Your task to perform on an android device: Open eBay Image 0: 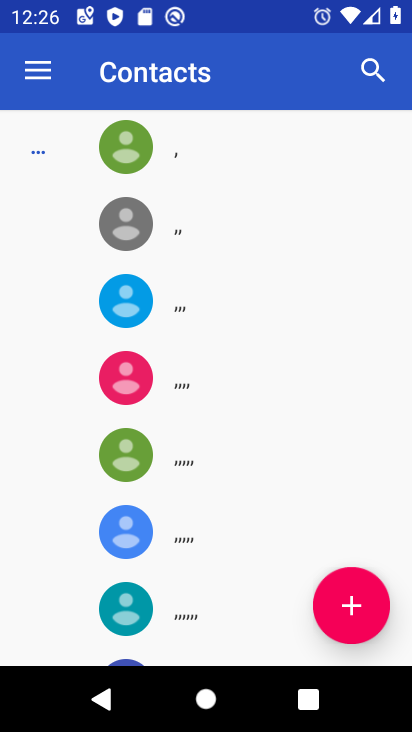
Step 0: press back button
Your task to perform on an android device: Open eBay Image 1: 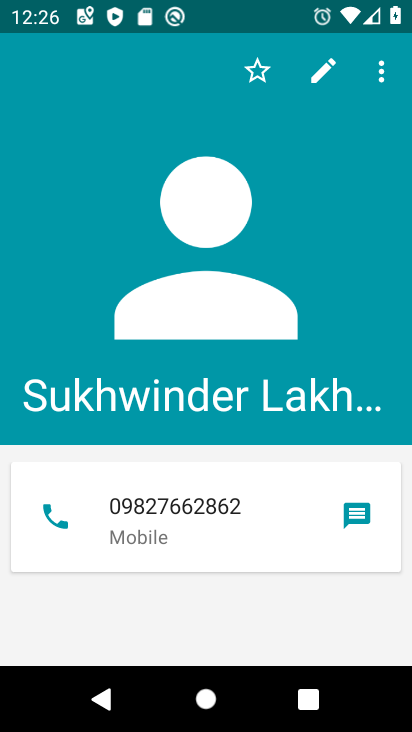
Step 1: press back button
Your task to perform on an android device: Open eBay Image 2: 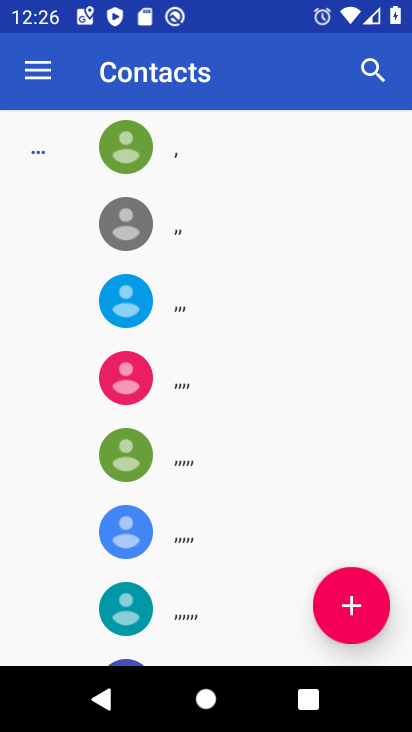
Step 2: press back button
Your task to perform on an android device: Open eBay Image 3: 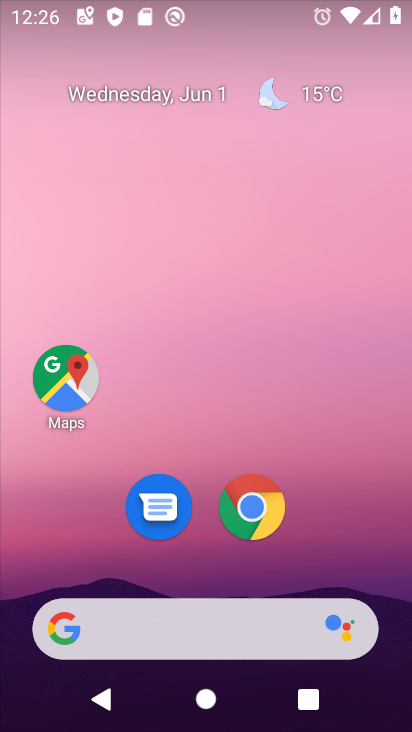
Step 3: click (250, 505)
Your task to perform on an android device: Open eBay Image 4: 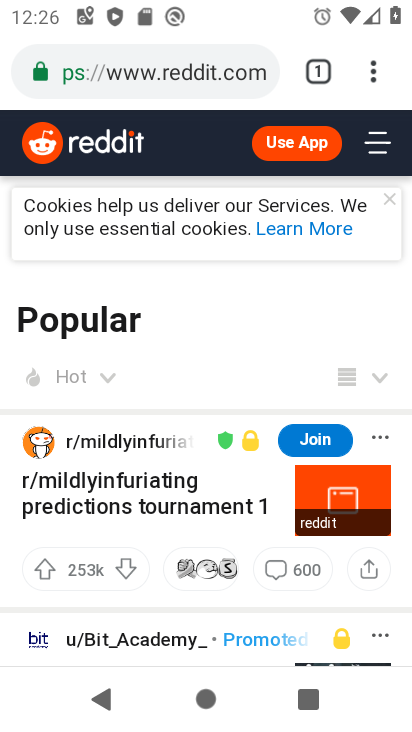
Step 4: click (246, 78)
Your task to perform on an android device: Open eBay Image 5: 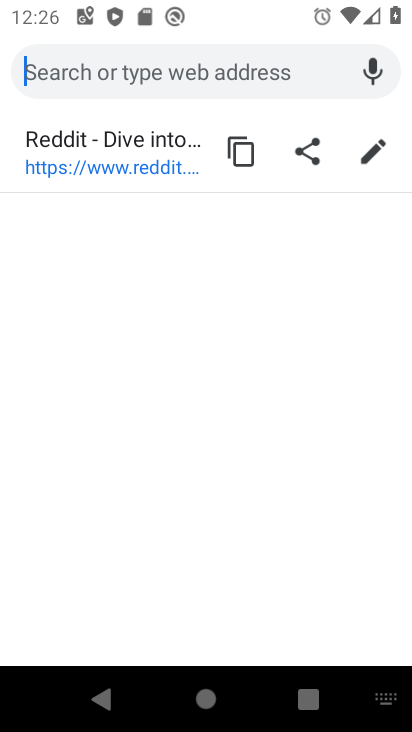
Step 5: type "eBay"
Your task to perform on an android device: Open eBay Image 6: 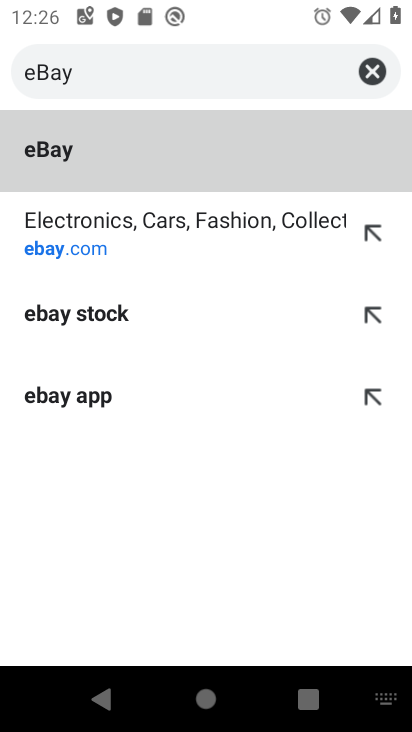
Step 6: click (71, 150)
Your task to perform on an android device: Open eBay Image 7: 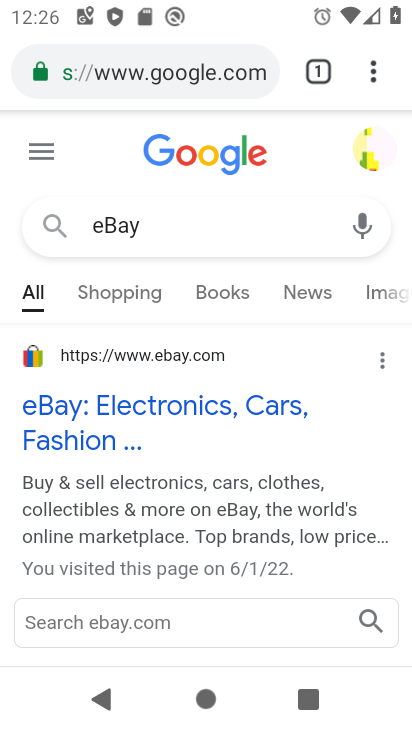
Step 7: click (216, 409)
Your task to perform on an android device: Open eBay Image 8: 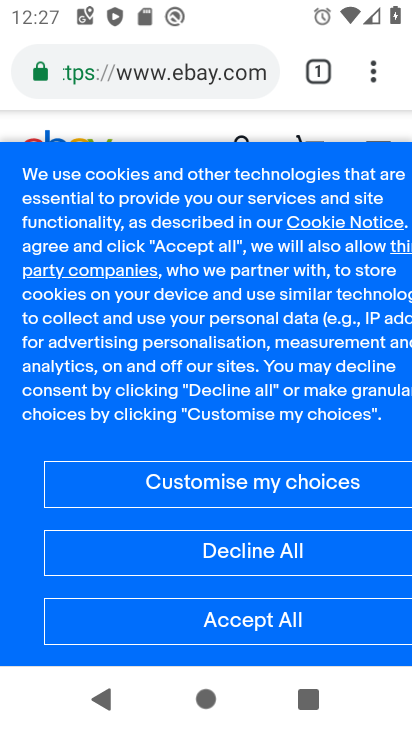
Step 8: click (331, 614)
Your task to perform on an android device: Open eBay Image 9: 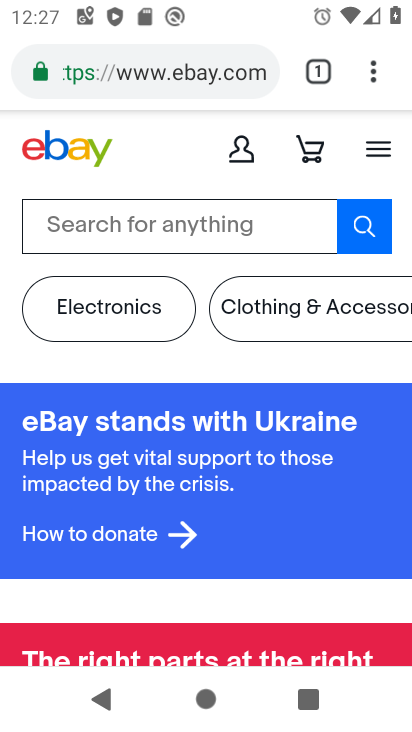
Step 9: task complete